Your task to perform on an android device: turn off translation in the chrome app Image 0: 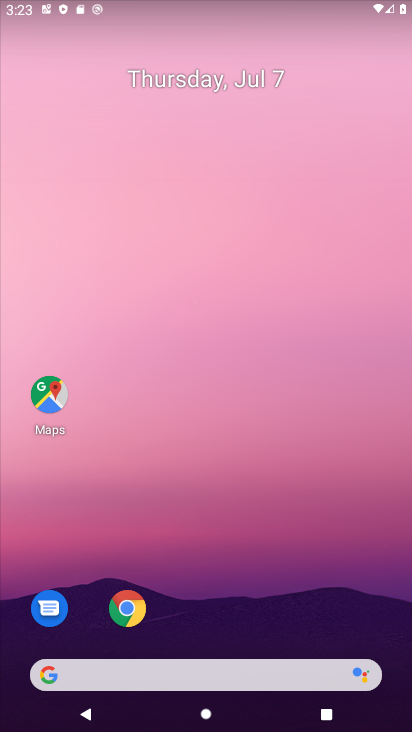
Step 0: click (130, 609)
Your task to perform on an android device: turn off translation in the chrome app Image 1: 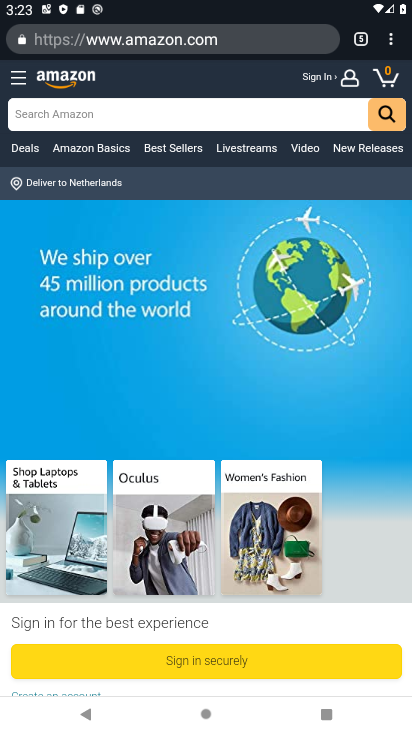
Step 1: click (392, 46)
Your task to perform on an android device: turn off translation in the chrome app Image 2: 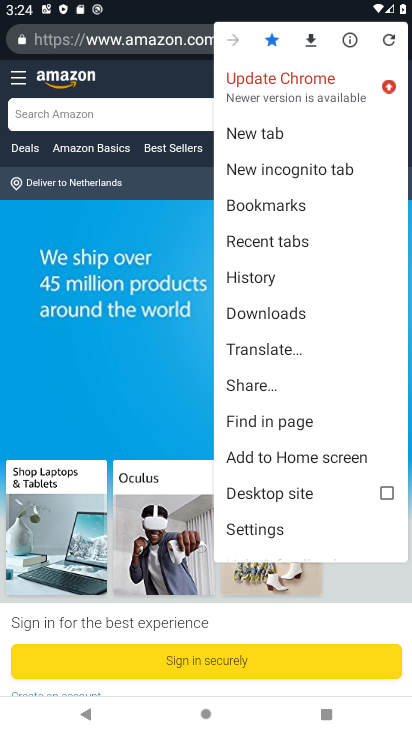
Step 2: click (257, 529)
Your task to perform on an android device: turn off translation in the chrome app Image 3: 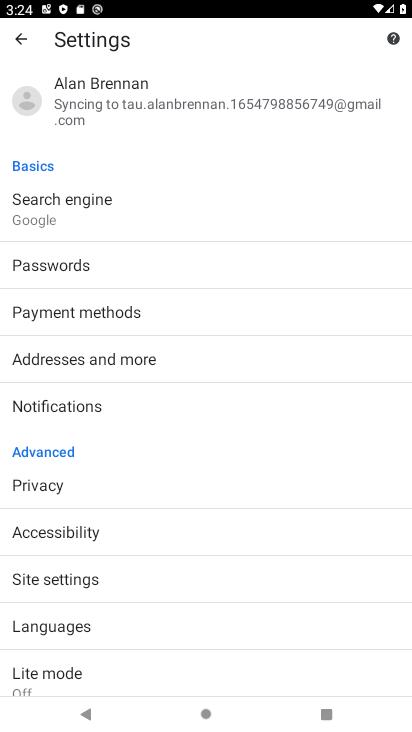
Step 3: drag from (191, 581) to (183, 382)
Your task to perform on an android device: turn off translation in the chrome app Image 4: 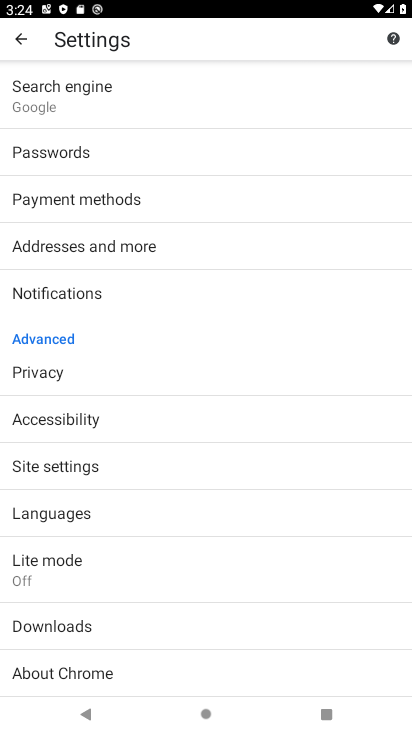
Step 4: click (44, 517)
Your task to perform on an android device: turn off translation in the chrome app Image 5: 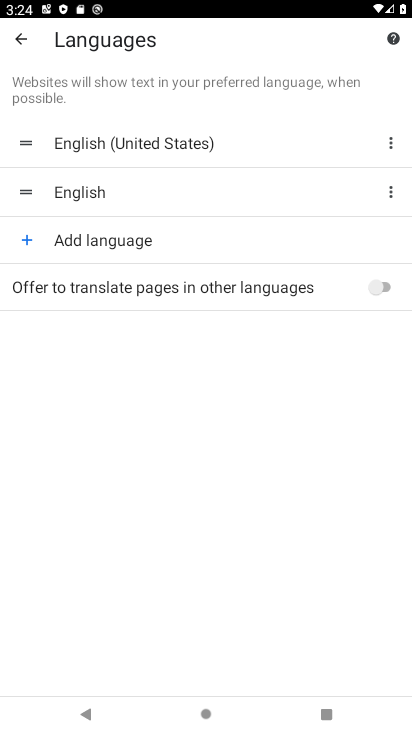
Step 5: task complete